Your task to perform on an android device: turn off location history Image 0: 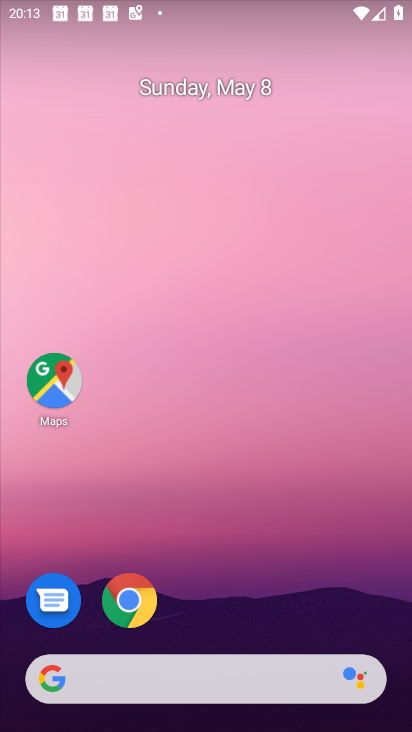
Step 0: drag from (248, 727) to (257, 379)
Your task to perform on an android device: turn off location history Image 1: 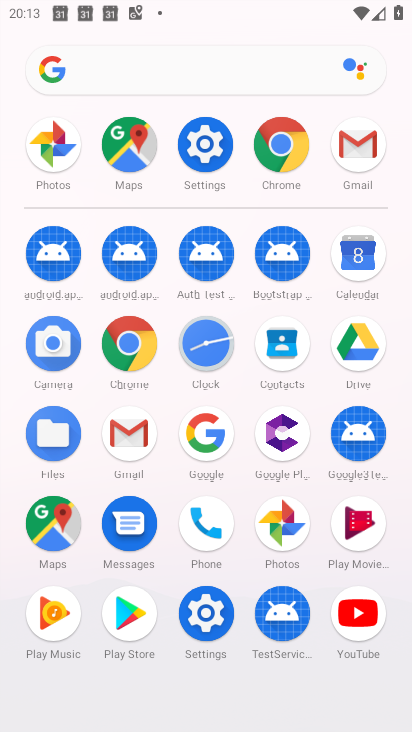
Step 1: click (197, 150)
Your task to perform on an android device: turn off location history Image 2: 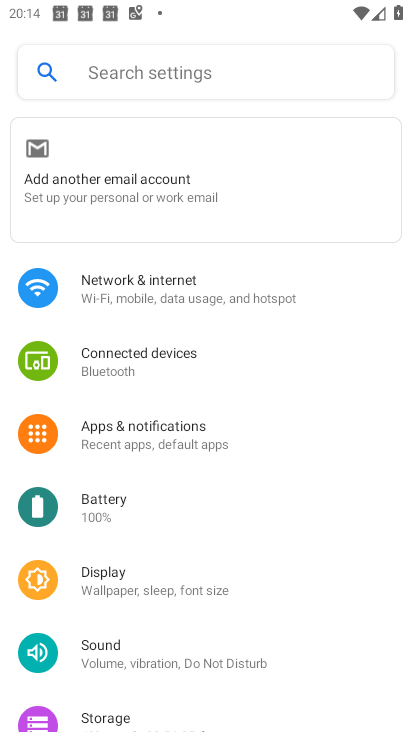
Step 2: click (142, 77)
Your task to perform on an android device: turn off location history Image 3: 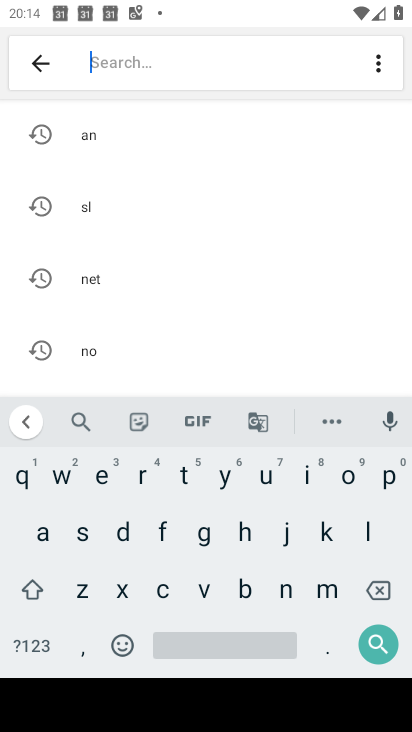
Step 3: drag from (128, 321) to (139, 274)
Your task to perform on an android device: turn off location history Image 4: 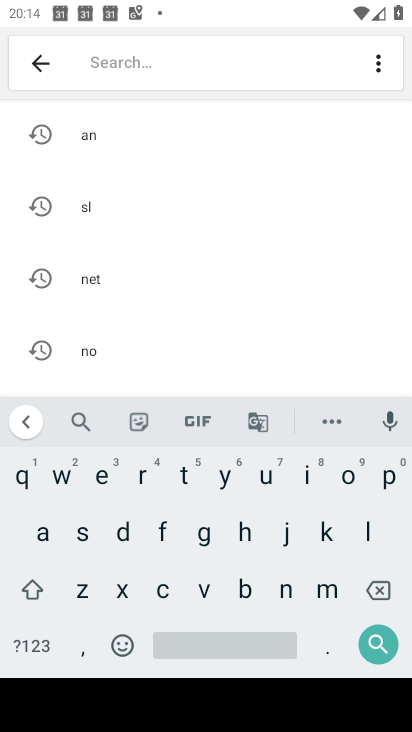
Step 4: click (370, 530)
Your task to perform on an android device: turn off location history Image 5: 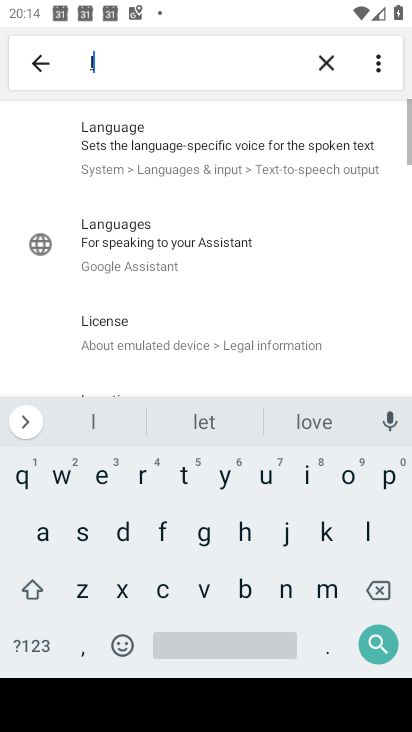
Step 5: click (341, 475)
Your task to perform on an android device: turn off location history Image 6: 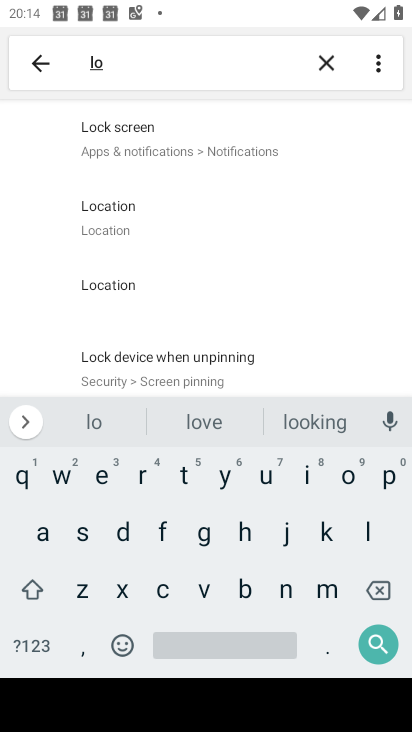
Step 6: click (168, 222)
Your task to perform on an android device: turn off location history Image 7: 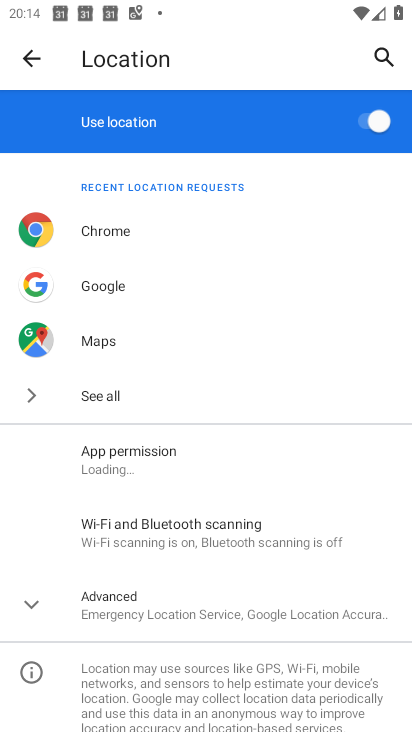
Step 7: click (74, 607)
Your task to perform on an android device: turn off location history Image 8: 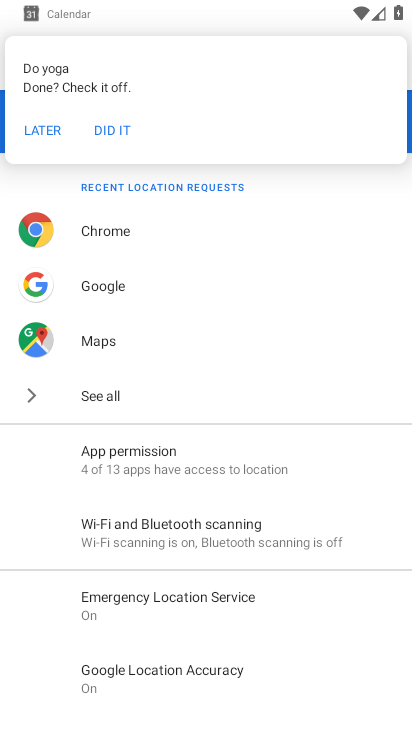
Step 8: drag from (238, 685) to (206, 589)
Your task to perform on an android device: turn off location history Image 9: 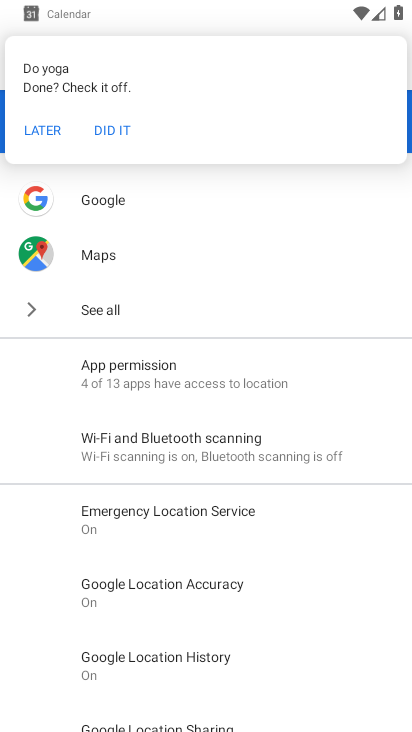
Step 9: click (151, 647)
Your task to perform on an android device: turn off location history Image 10: 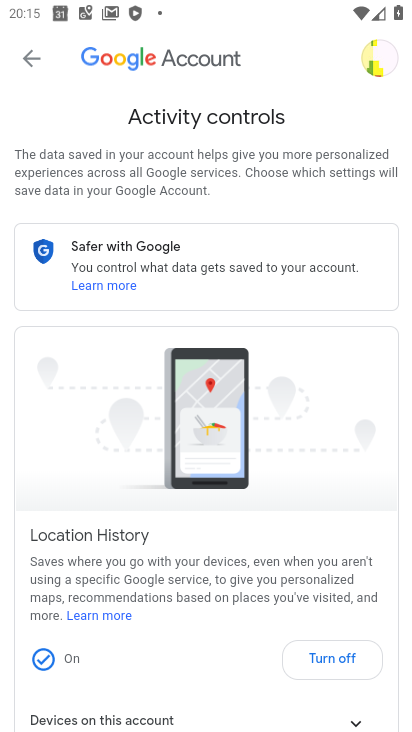
Step 10: drag from (255, 529) to (317, 259)
Your task to perform on an android device: turn off location history Image 11: 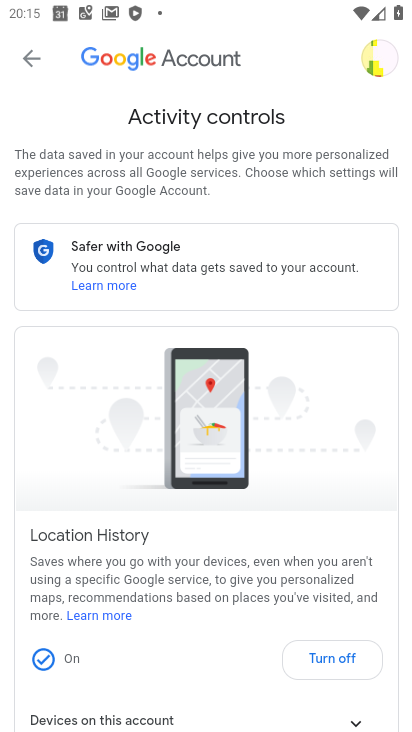
Step 11: click (333, 653)
Your task to perform on an android device: turn off location history Image 12: 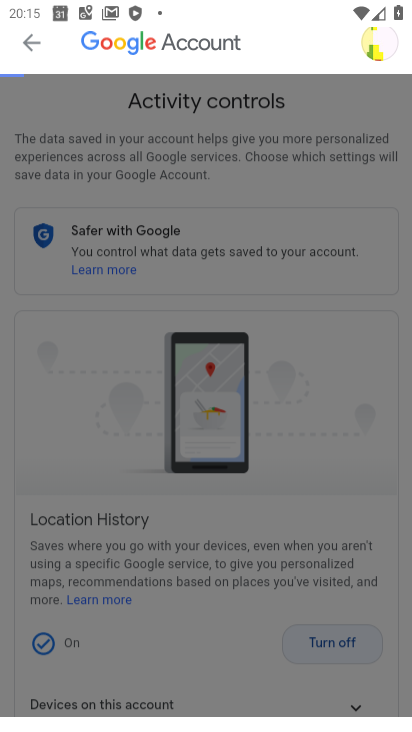
Step 12: task complete